Your task to perform on an android device: delete location history Image 0: 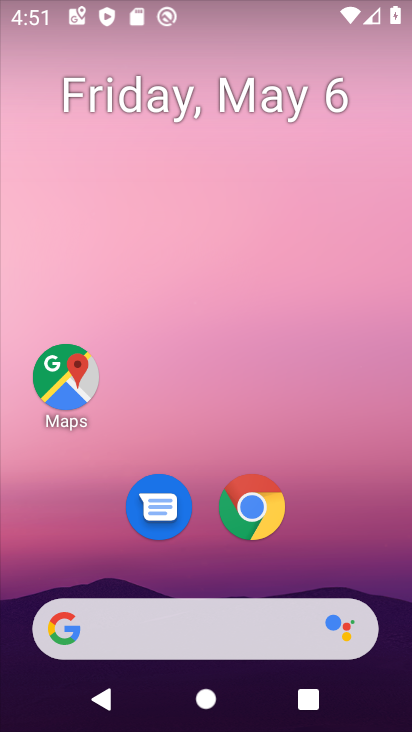
Step 0: click (64, 393)
Your task to perform on an android device: delete location history Image 1: 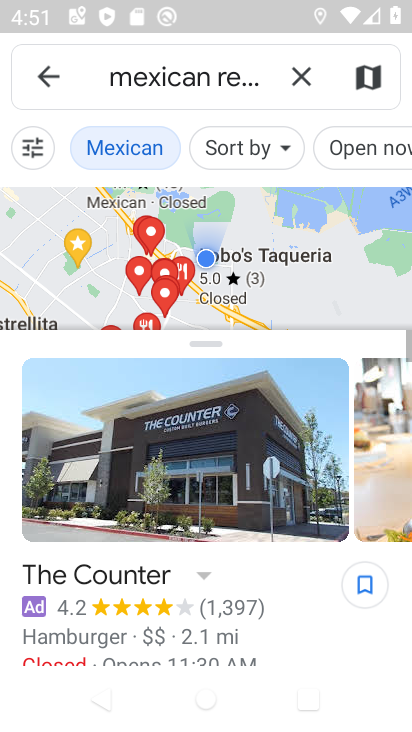
Step 1: click (301, 76)
Your task to perform on an android device: delete location history Image 2: 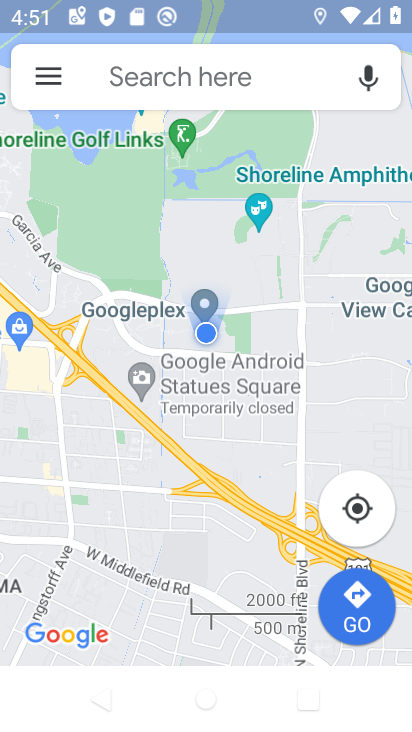
Step 2: click (47, 69)
Your task to perform on an android device: delete location history Image 3: 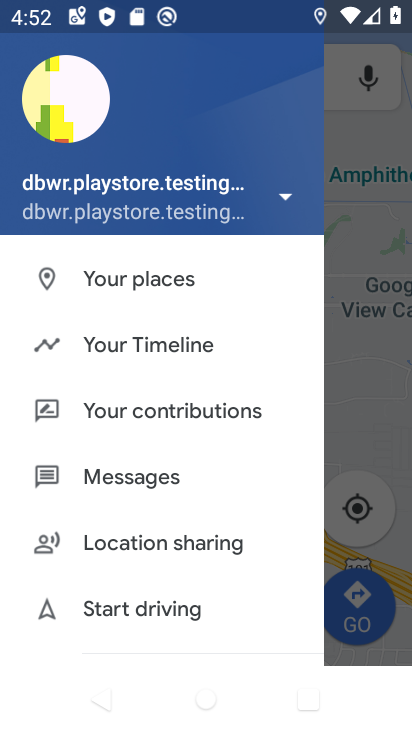
Step 3: click (135, 344)
Your task to perform on an android device: delete location history Image 4: 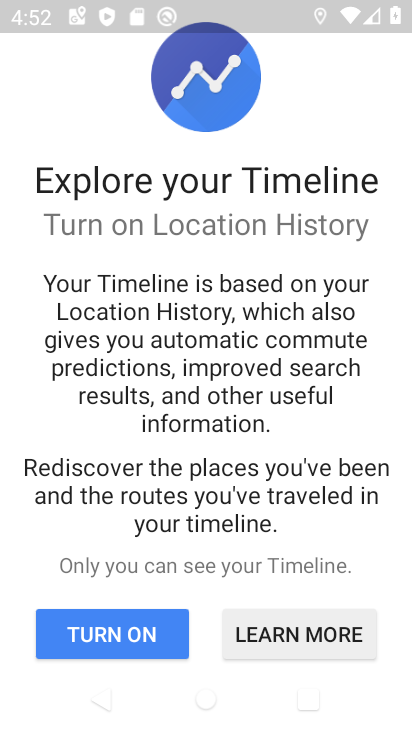
Step 4: click (139, 637)
Your task to perform on an android device: delete location history Image 5: 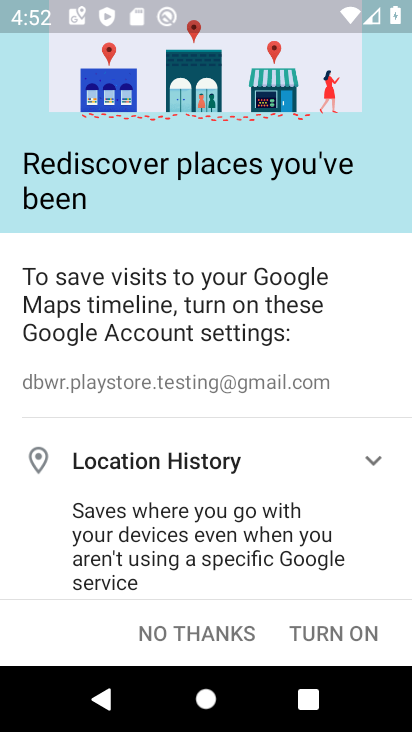
Step 5: click (346, 633)
Your task to perform on an android device: delete location history Image 6: 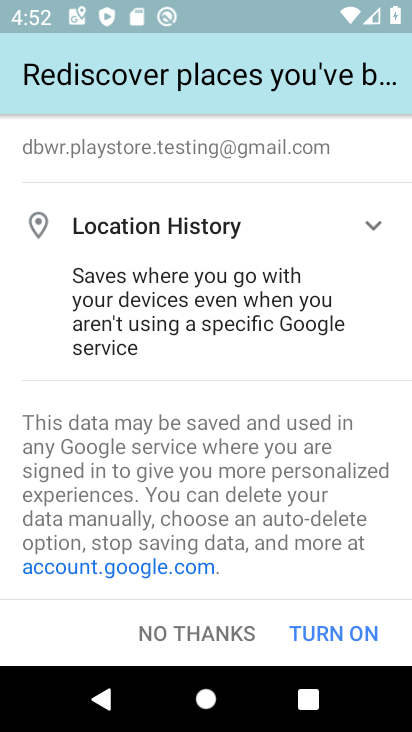
Step 6: click (334, 633)
Your task to perform on an android device: delete location history Image 7: 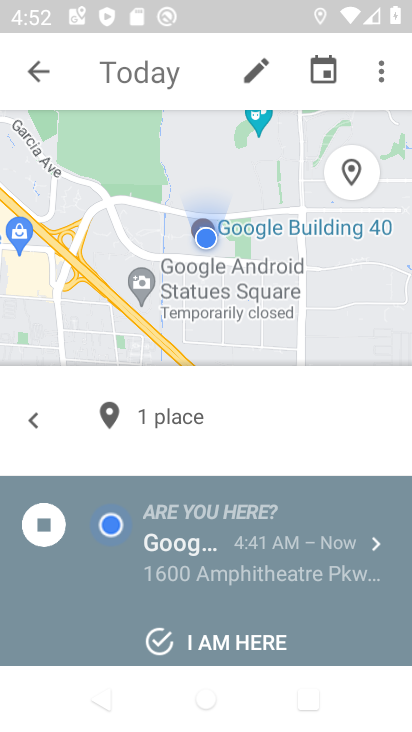
Step 7: click (379, 67)
Your task to perform on an android device: delete location history Image 8: 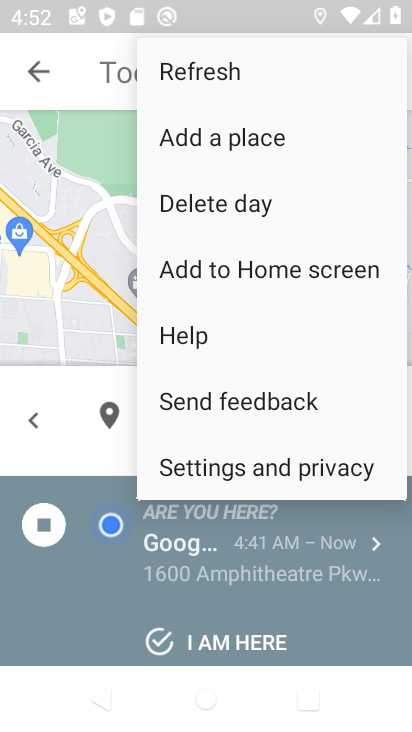
Step 8: click (265, 469)
Your task to perform on an android device: delete location history Image 9: 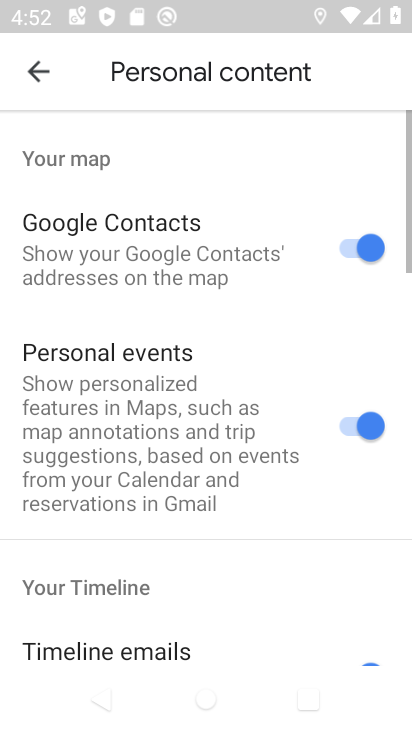
Step 9: drag from (199, 571) to (207, 269)
Your task to perform on an android device: delete location history Image 10: 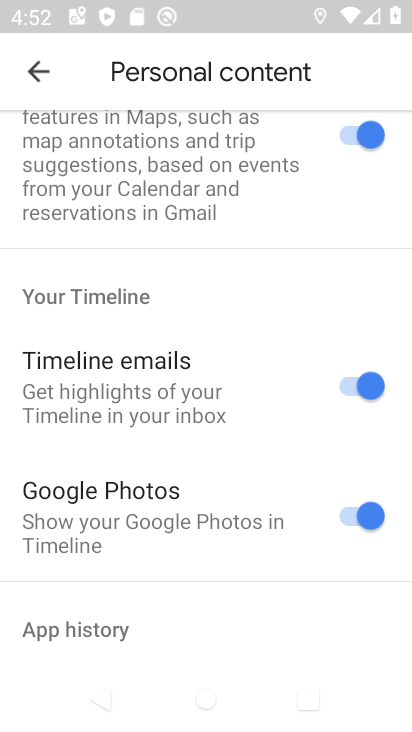
Step 10: drag from (194, 580) to (212, 242)
Your task to perform on an android device: delete location history Image 11: 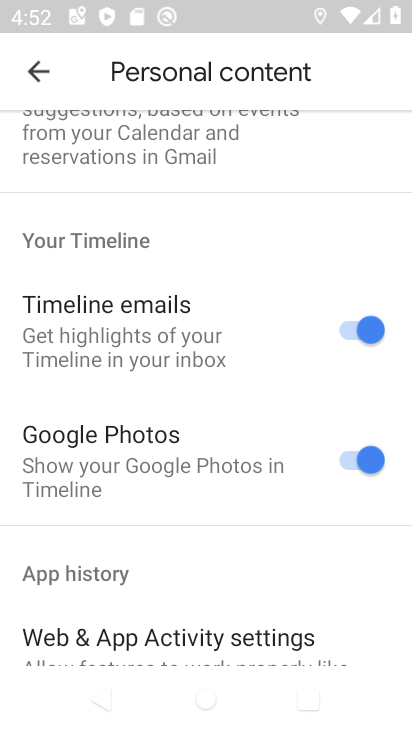
Step 11: drag from (174, 547) to (212, 168)
Your task to perform on an android device: delete location history Image 12: 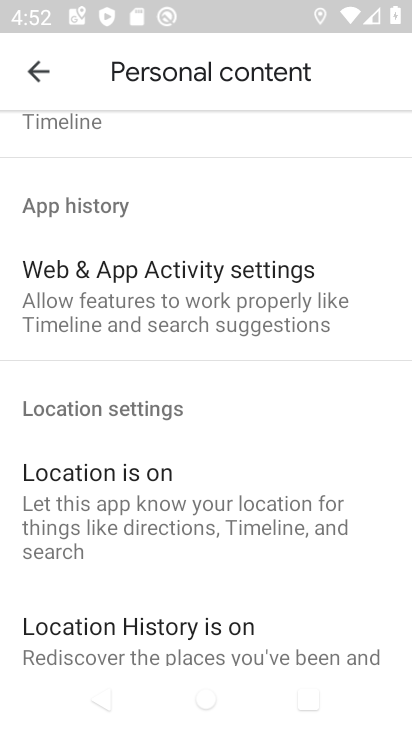
Step 12: drag from (186, 548) to (151, 247)
Your task to perform on an android device: delete location history Image 13: 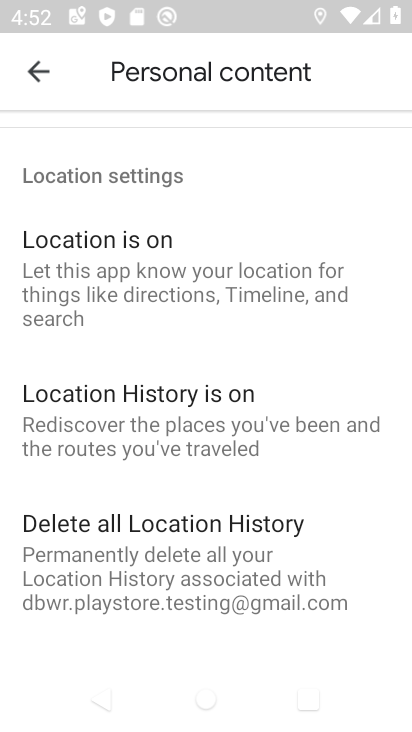
Step 13: click (144, 524)
Your task to perform on an android device: delete location history Image 14: 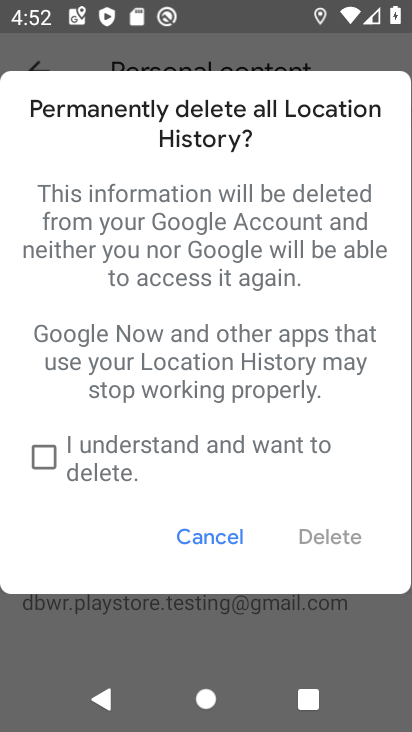
Step 14: click (43, 451)
Your task to perform on an android device: delete location history Image 15: 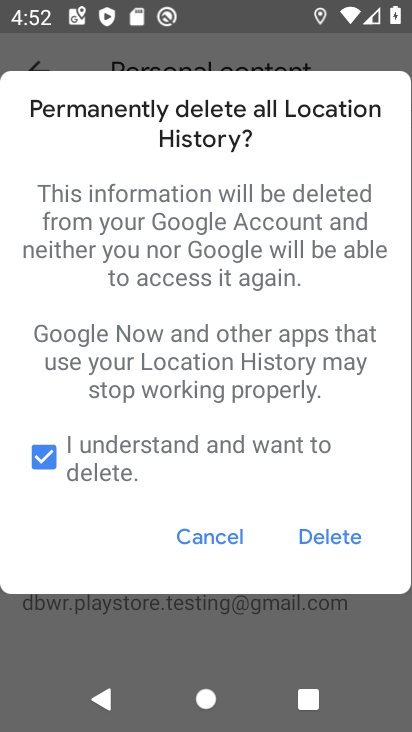
Step 15: click (331, 541)
Your task to perform on an android device: delete location history Image 16: 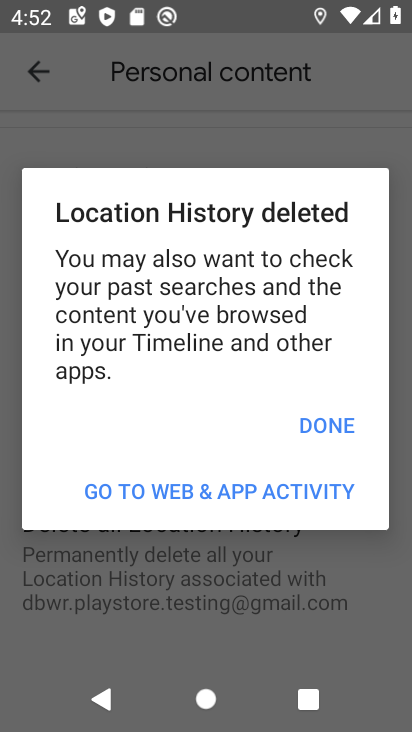
Step 16: click (329, 429)
Your task to perform on an android device: delete location history Image 17: 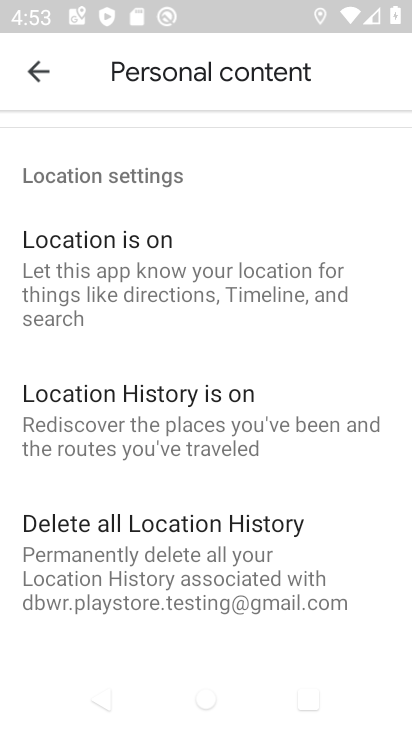
Step 17: task complete